Your task to perform on an android device: Open notification settings Image 0: 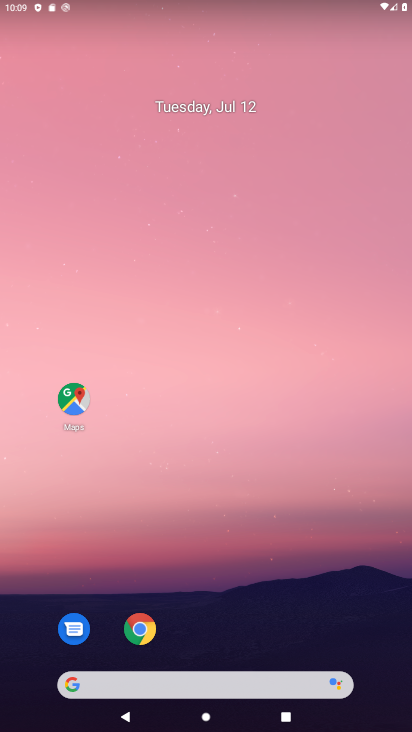
Step 0: drag from (321, 627) to (339, 309)
Your task to perform on an android device: Open notification settings Image 1: 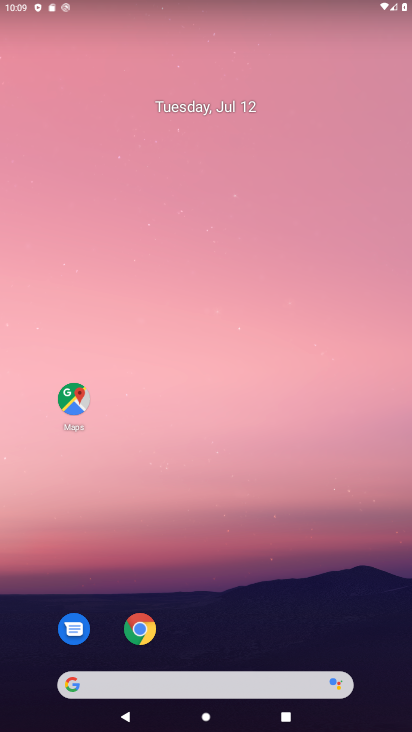
Step 1: drag from (327, 619) to (315, 168)
Your task to perform on an android device: Open notification settings Image 2: 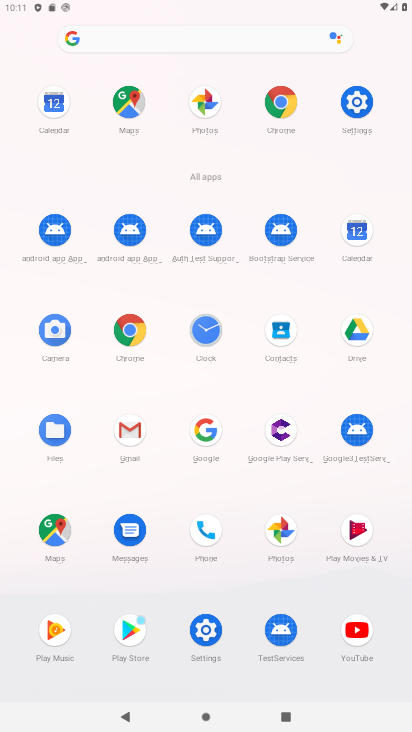
Step 2: click (359, 84)
Your task to perform on an android device: Open notification settings Image 3: 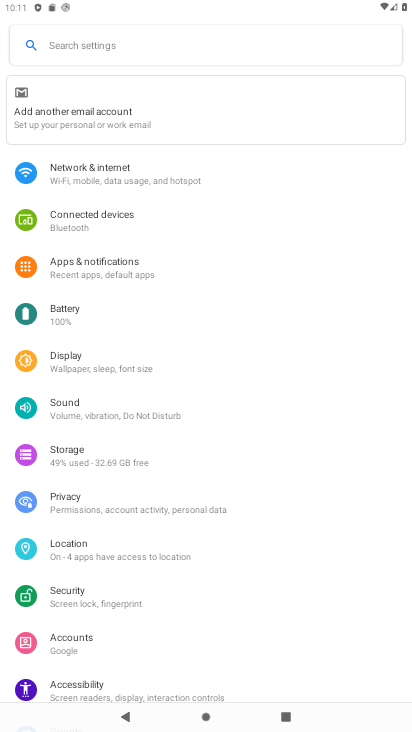
Step 3: drag from (296, 663) to (254, 244)
Your task to perform on an android device: Open notification settings Image 4: 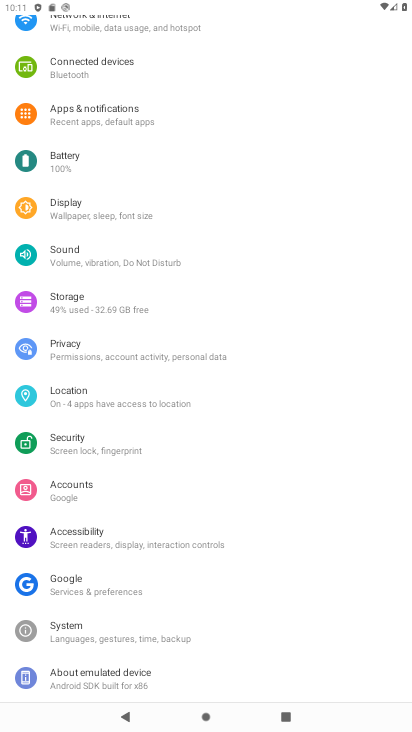
Step 4: drag from (215, 245) to (230, 376)
Your task to perform on an android device: Open notification settings Image 5: 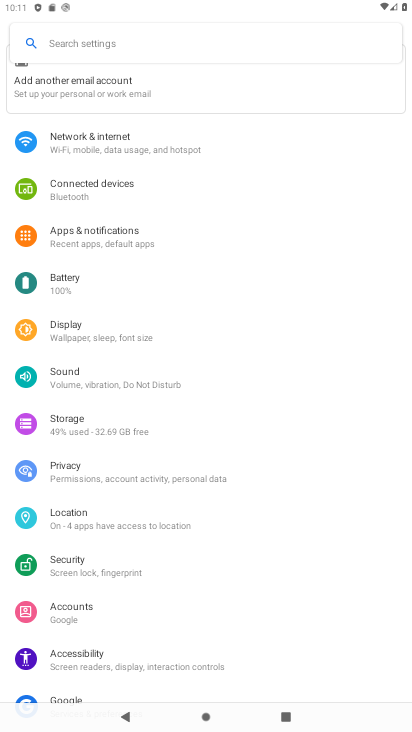
Step 5: click (152, 246)
Your task to perform on an android device: Open notification settings Image 6: 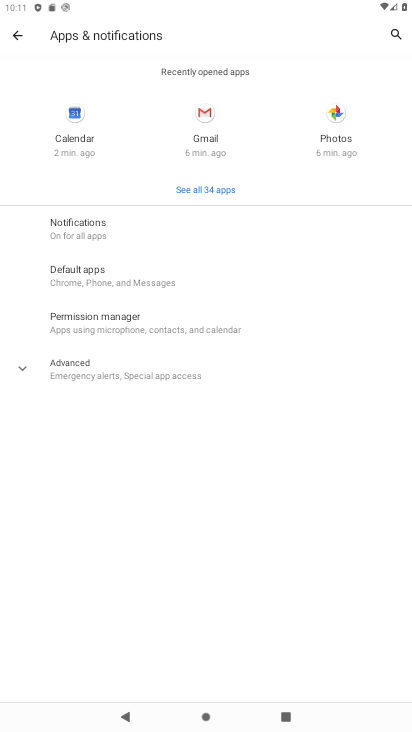
Step 6: click (121, 234)
Your task to perform on an android device: Open notification settings Image 7: 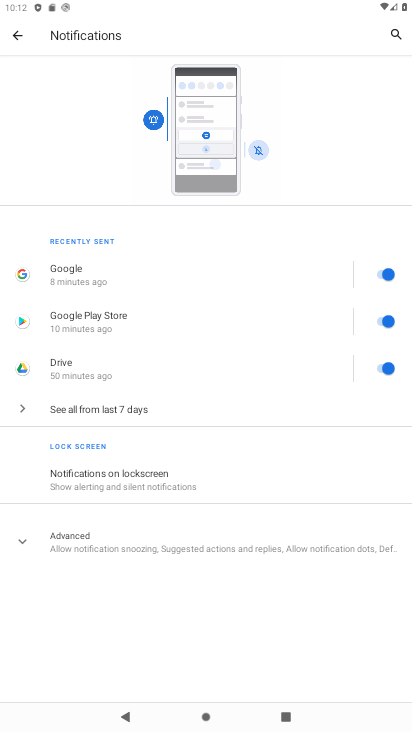
Step 7: task complete